Your task to perform on an android device: Go to Android settings Image 0: 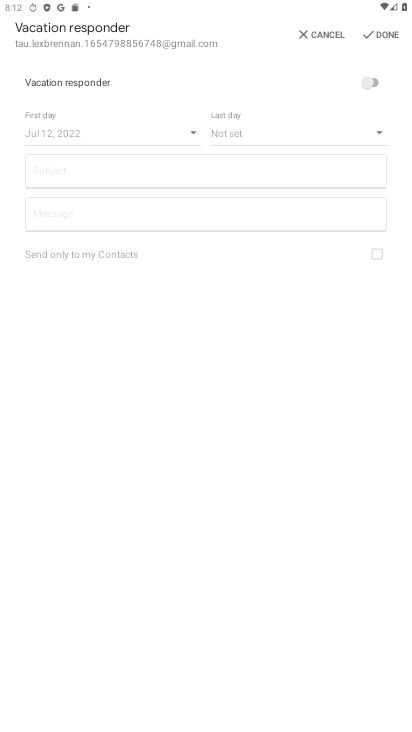
Step 0: press back button
Your task to perform on an android device: Go to Android settings Image 1: 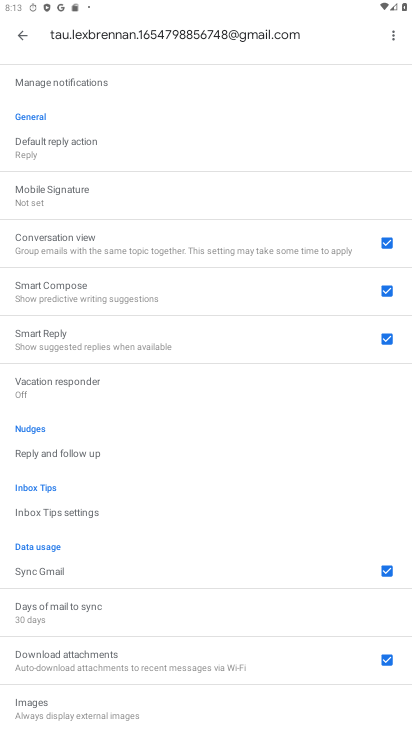
Step 1: click (25, 33)
Your task to perform on an android device: Go to Android settings Image 2: 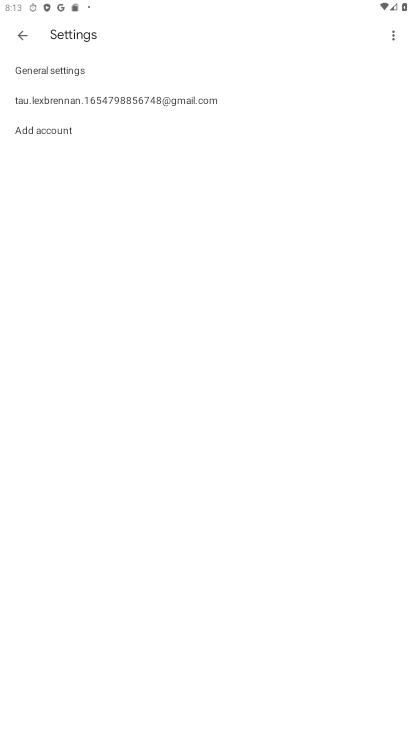
Step 2: click (21, 29)
Your task to perform on an android device: Go to Android settings Image 3: 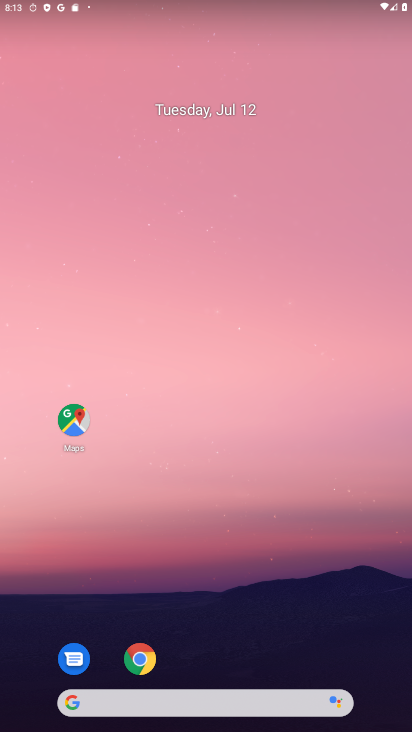
Step 3: click (162, 185)
Your task to perform on an android device: Go to Android settings Image 4: 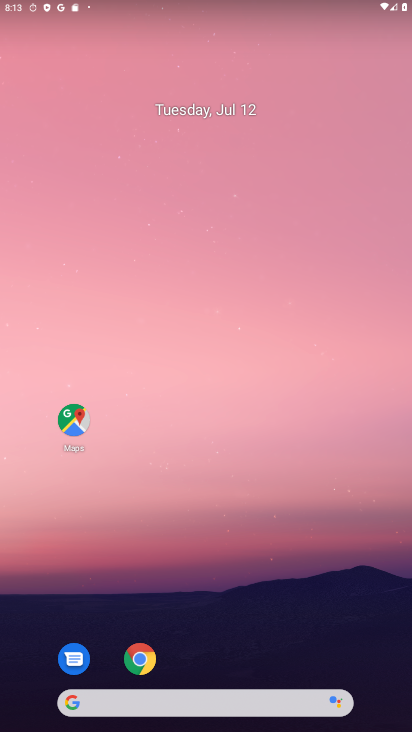
Step 4: drag from (258, 621) to (221, 237)
Your task to perform on an android device: Go to Android settings Image 5: 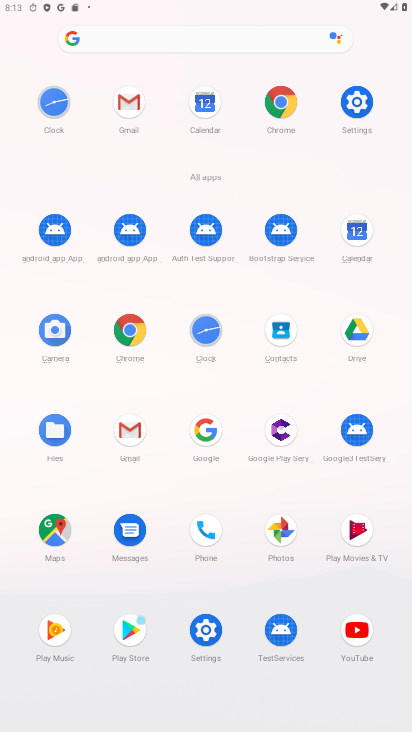
Step 5: click (191, 633)
Your task to perform on an android device: Go to Android settings Image 6: 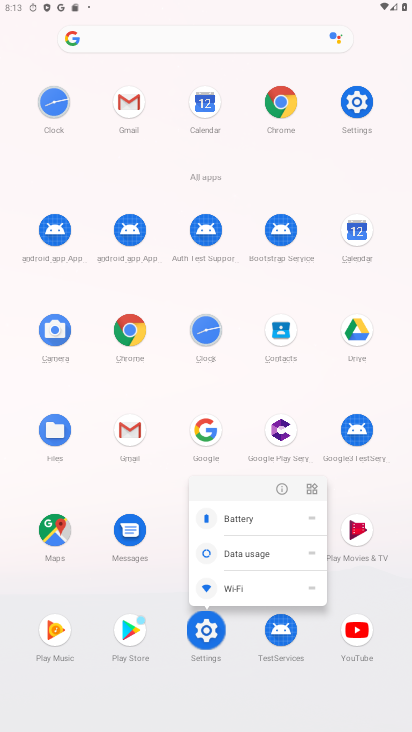
Step 6: click (214, 633)
Your task to perform on an android device: Go to Android settings Image 7: 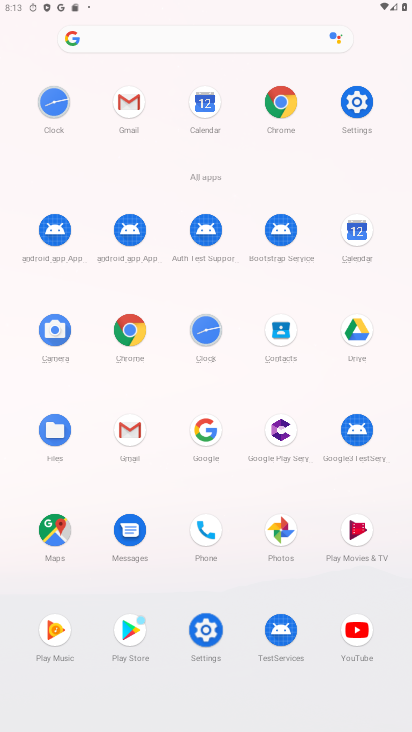
Step 7: click (214, 633)
Your task to perform on an android device: Go to Android settings Image 8: 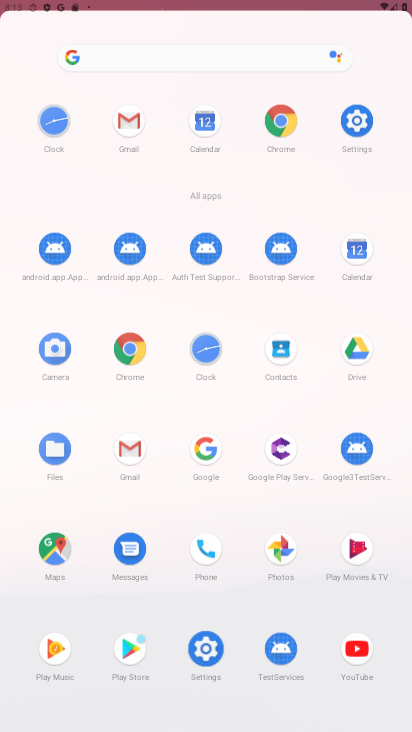
Step 8: click (214, 633)
Your task to perform on an android device: Go to Android settings Image 9: 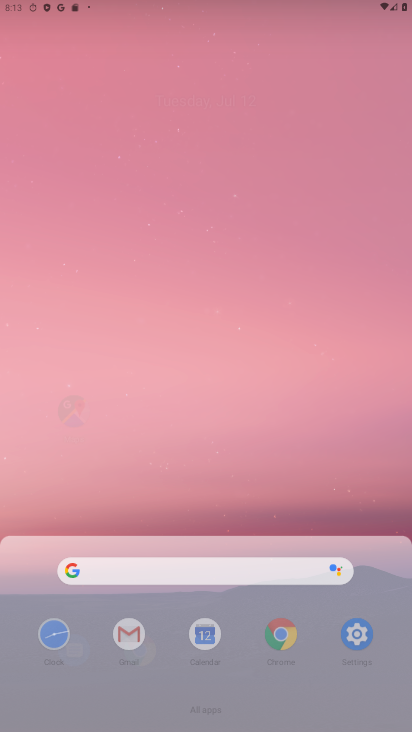
Step 9: click (214, 633)
Your task to perform on an android device: Go to Android settings Image 10: 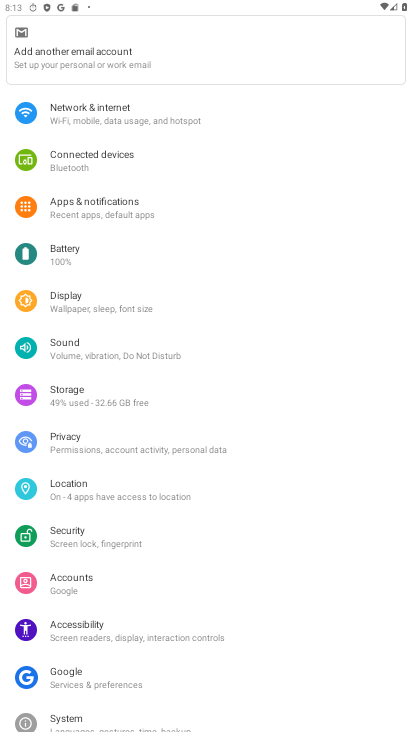
Step 10: drag from (91, 588) to (157, 266)
Your task to perform on an android device: Go to Android settings Image 11: 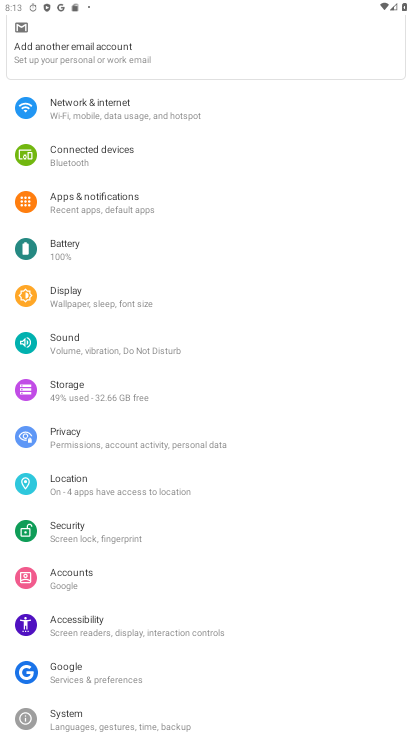
Step 11: drag from (168, 509) to (185, 270)
Your task to perform on an android device: Go to Android settings Image 12: 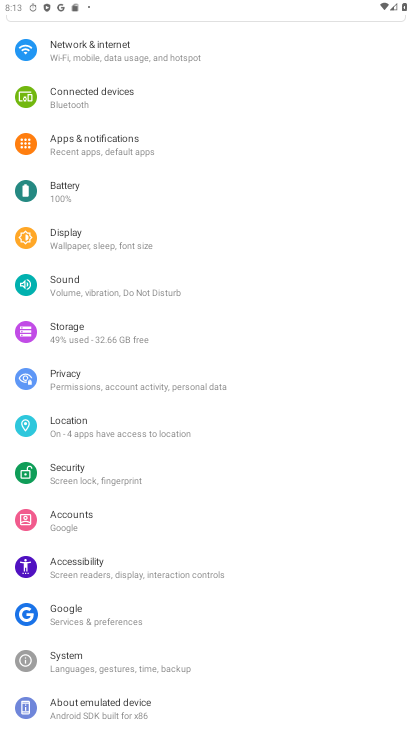
Step 12: drag from (235, 436) to (265, 241)
Your task to perform on an android device: Go to Android settings Image 13: 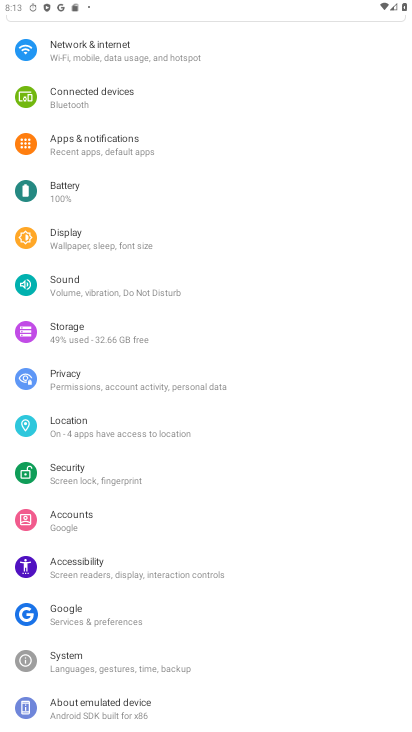
Step 13: click (91, 711)
Your task to perform on an android device: Go to Android settings Image 14: 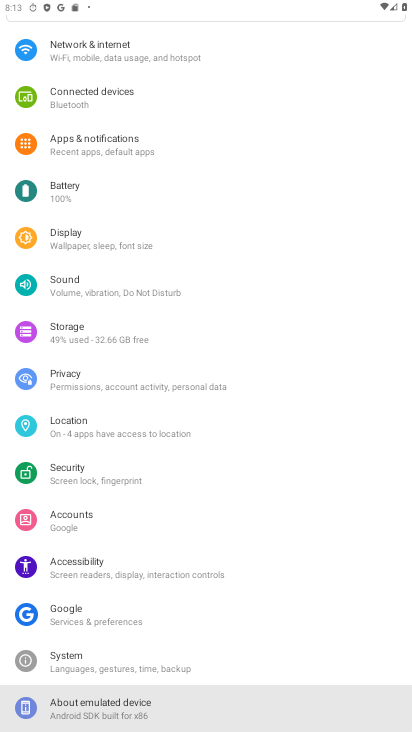
Step 14: click (92, 701)
Your task to perform on an android device: Go to Android settings Image 15: 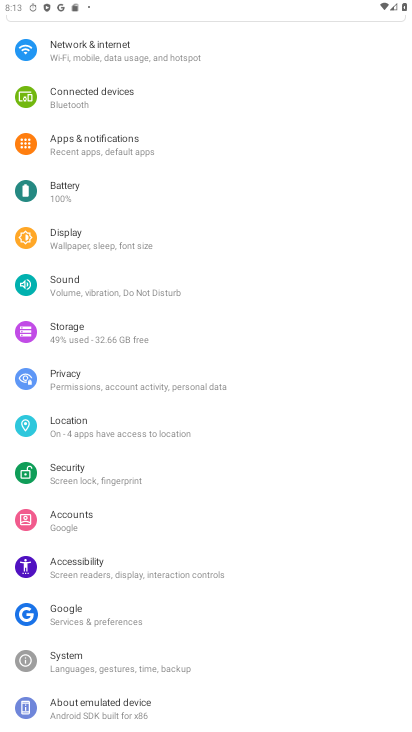
Step 15: click (92, 701)
Your task to perform on an android device: Go to Android settings Image 16: 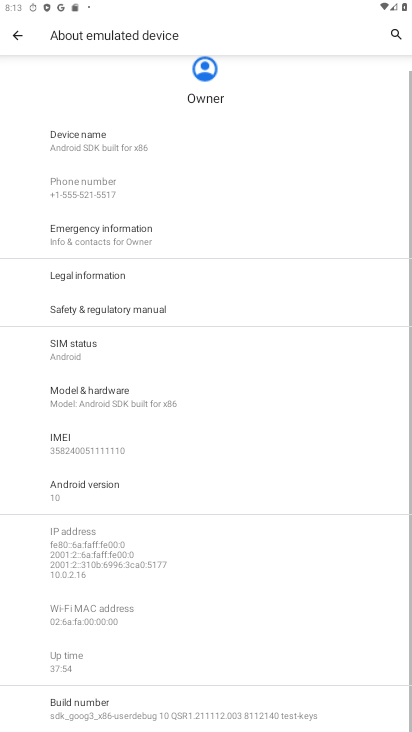
Step 16: task complete